Your task to perform on an android device: Open calendar and show me the second week of next month Image 0: 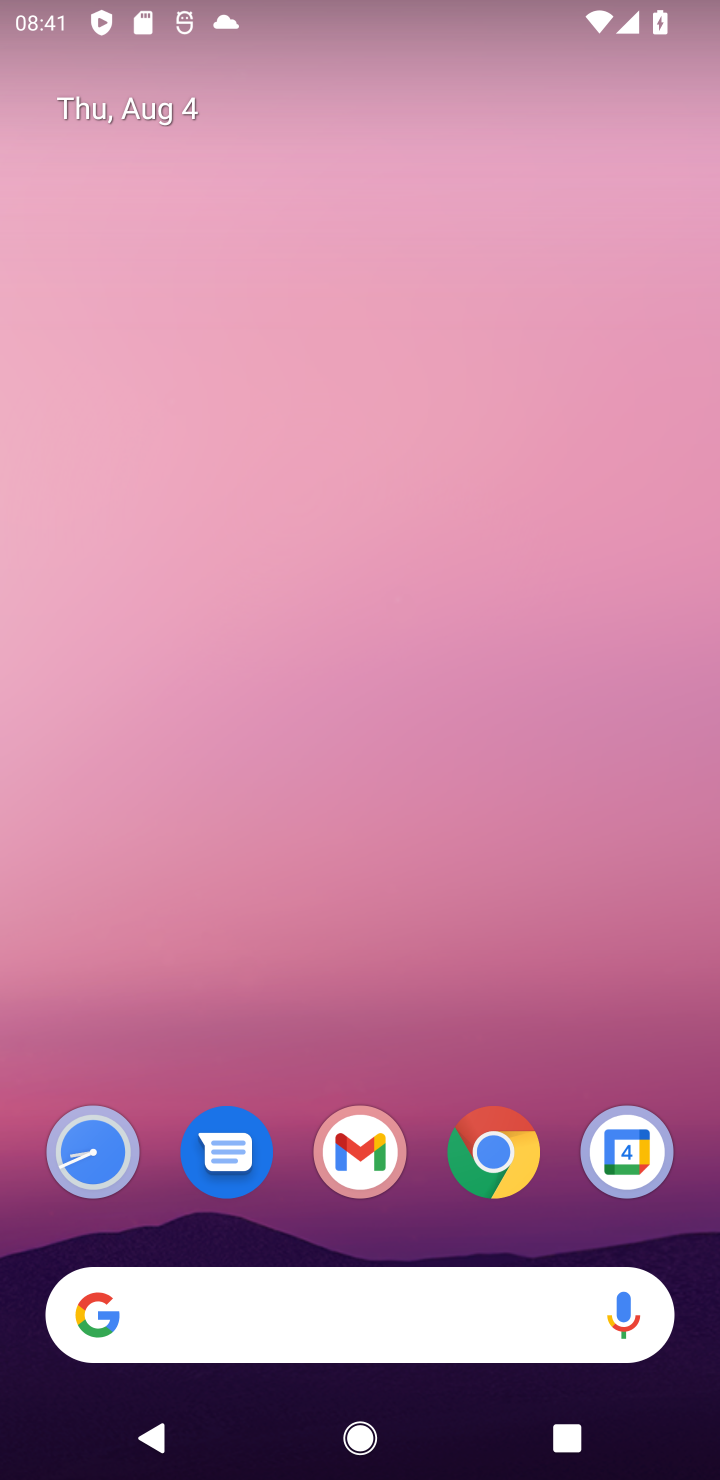
Step 0: drag from (38, 1107) to (403, 138)
Your task to perform on an android device: Open calendar and show me the second week of next month Image 1: 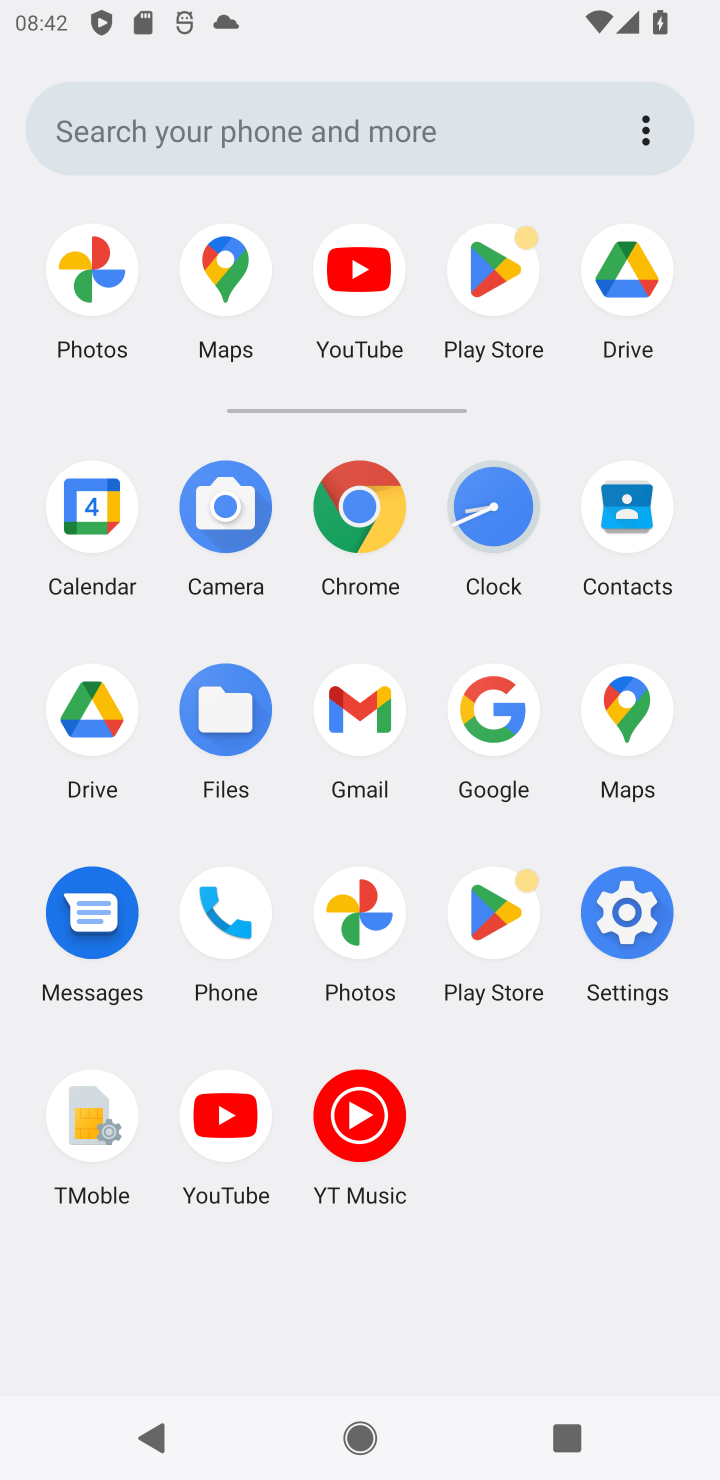
Step 1: click (100, 499)
Your task to perform on an android device: Open calendar and show me the second week of next month Image 2: 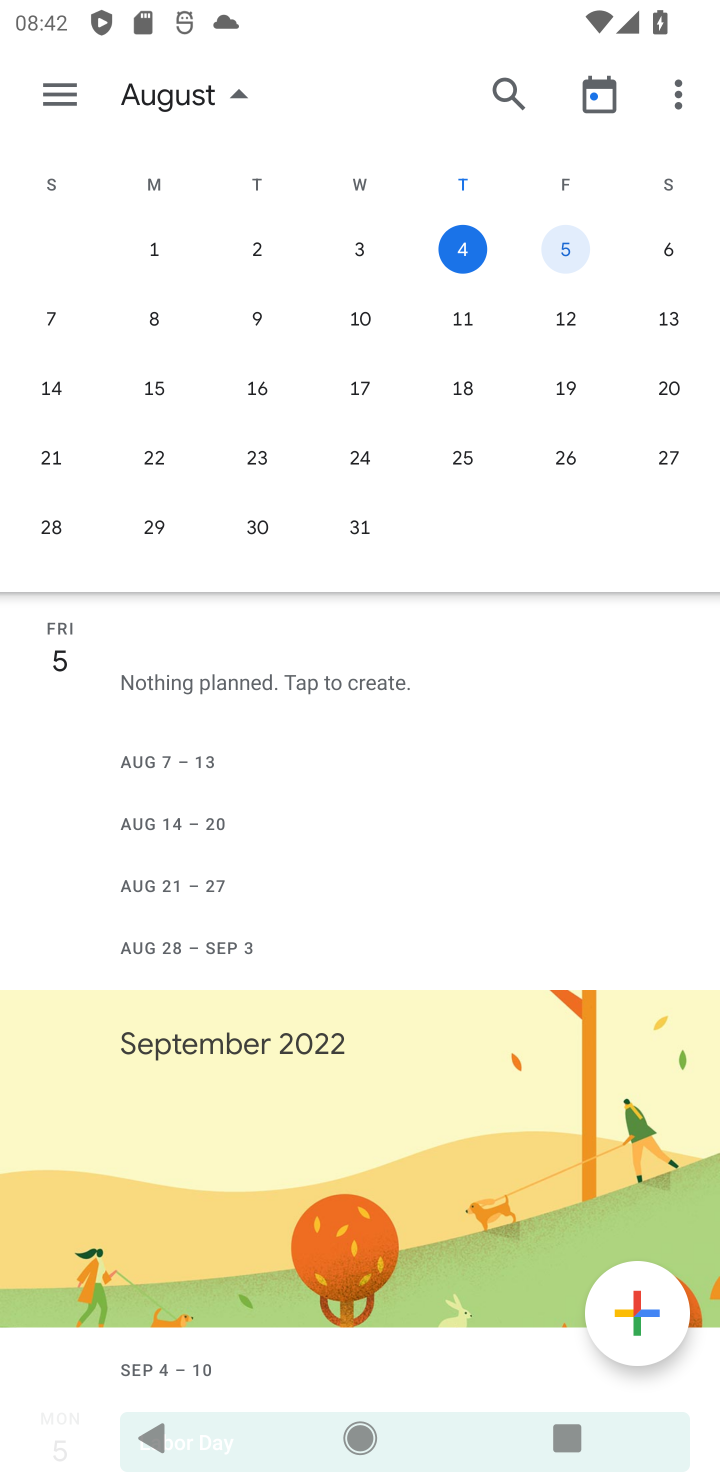
Step 2: drag from (674, 304) to (5, 316)
Your task to perform on an android device: Open calendar and show me the second week of next month Image 3: 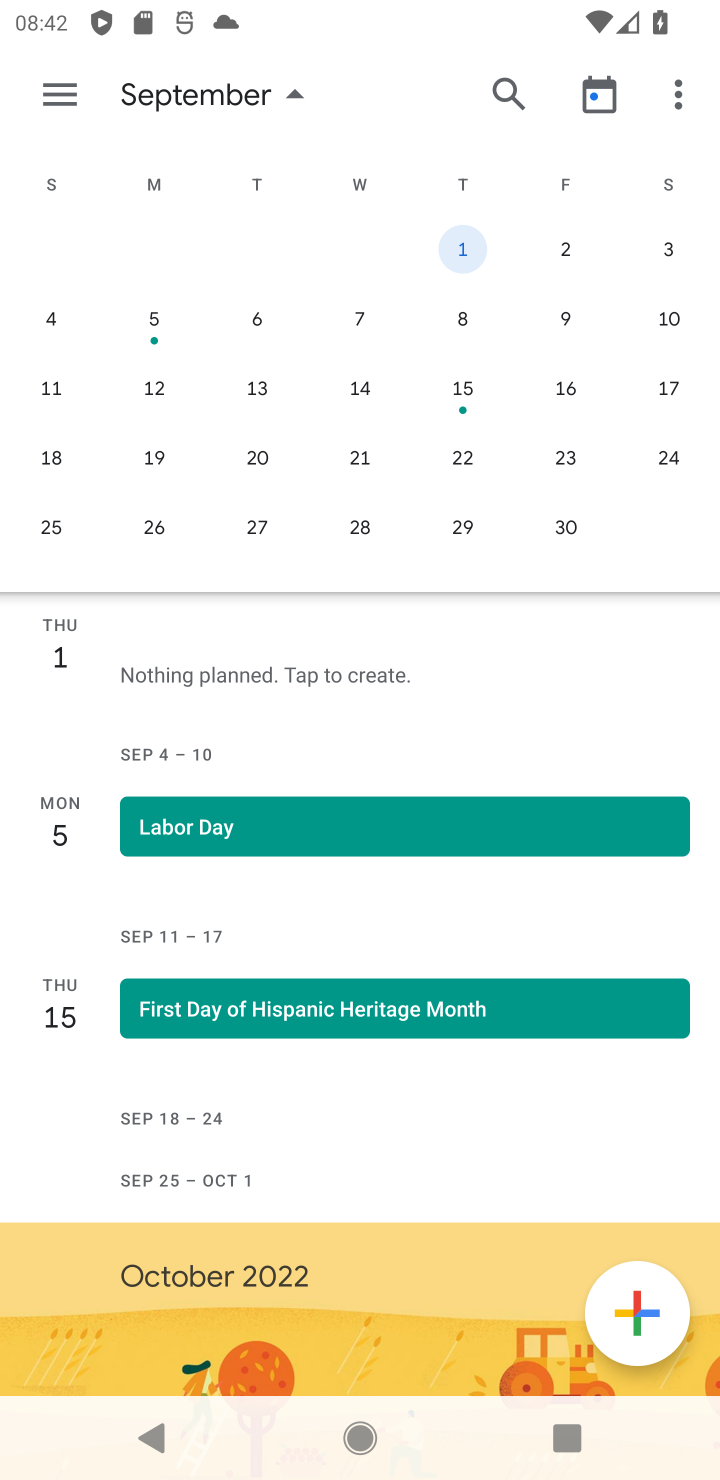
Step 3: click (144, 324)
Your task to perform on an android device: Open calendar and show me the second week of next month Image 4: 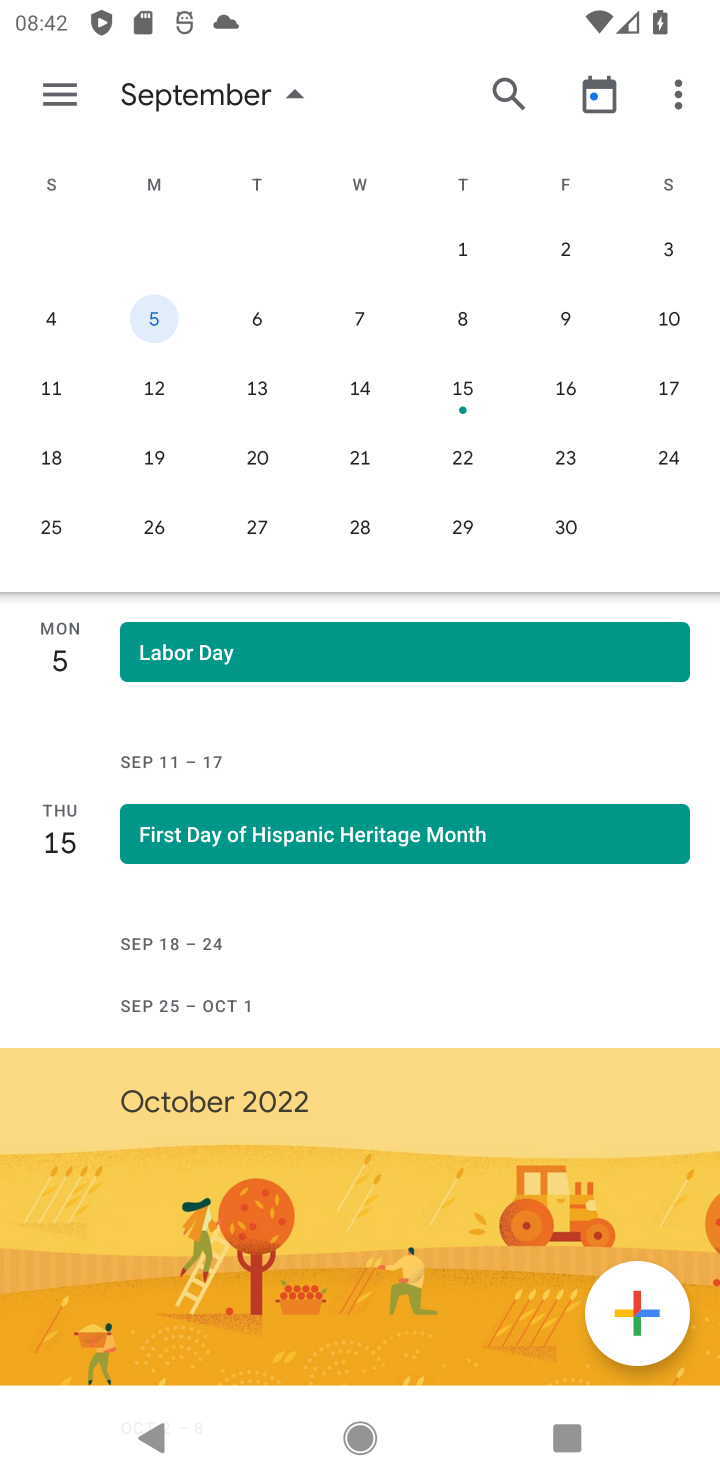
Step 4: click (254, 310)
Your task to perform on an android device: Open calendar and show me the second week of next month Image 5: 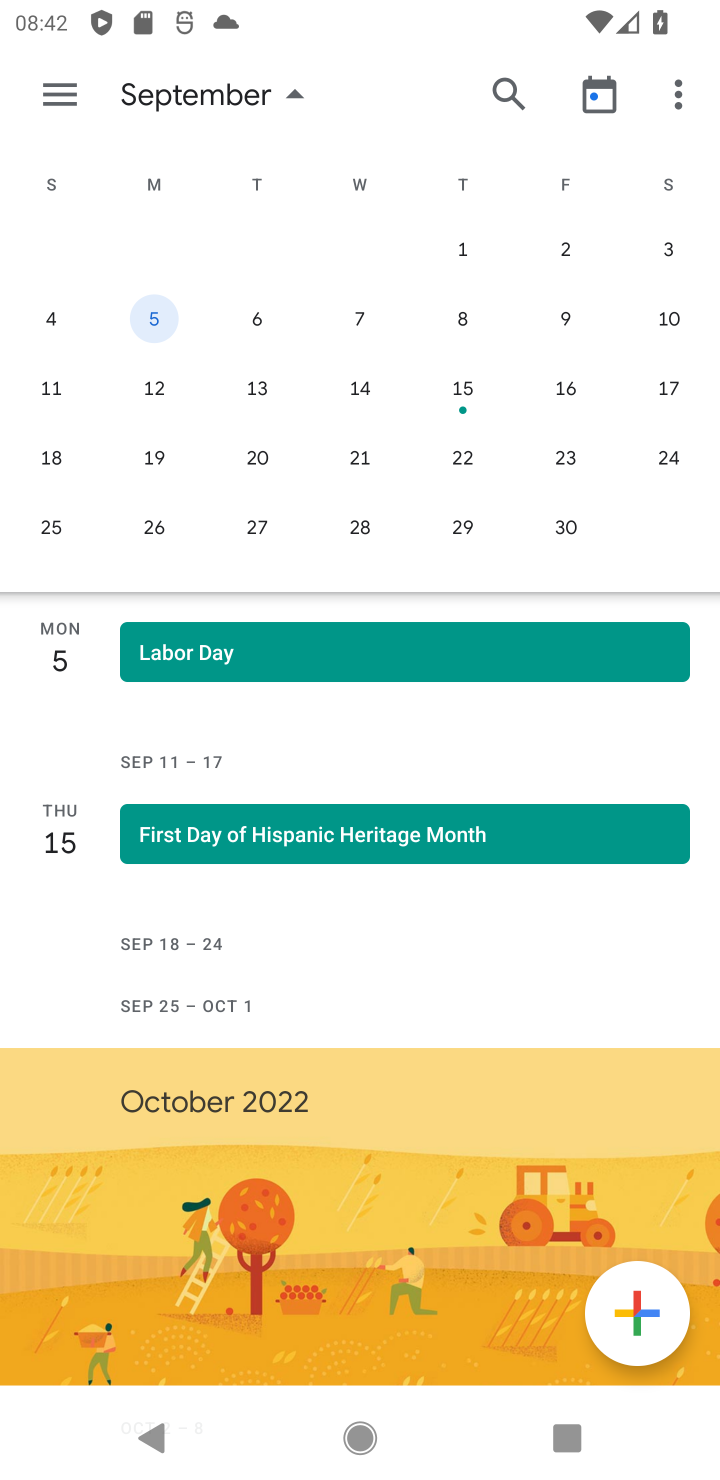
Step 5: click (261, 327)
Your task to perform on an android device: Open calendar and show me the second week of next month Image 6: 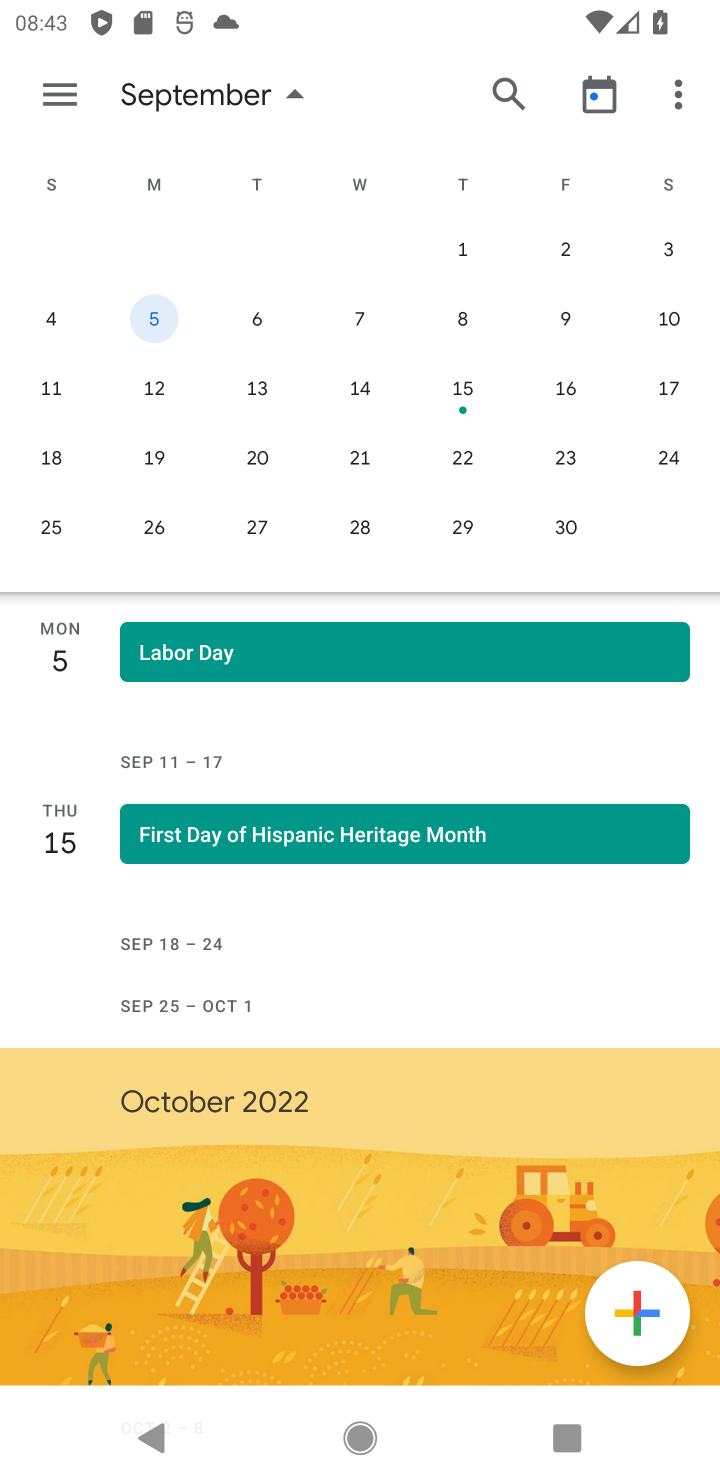
Step 6: click (245, 306)
Your task to perform on an android device: Open calendar and show me the second week of next month Image 7: 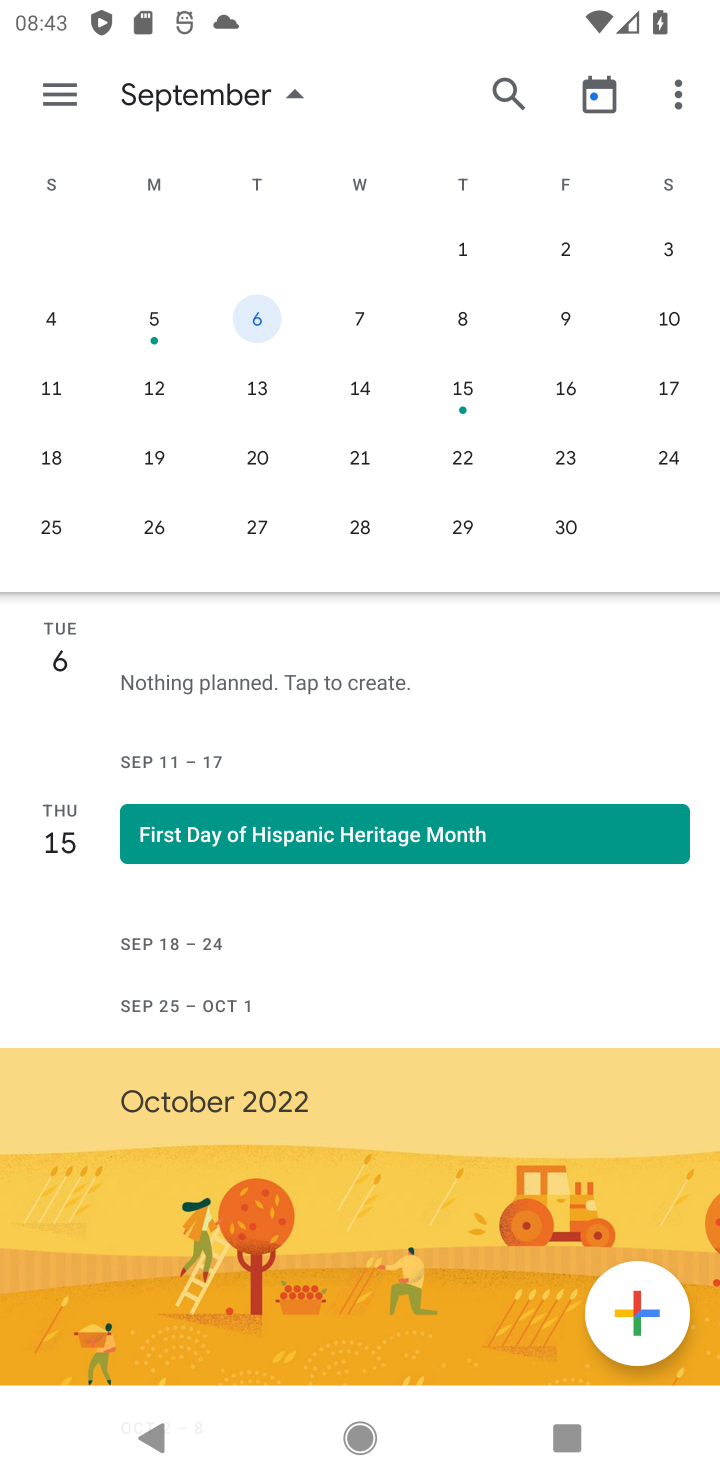
Step 7: click (369, 309)
Your task to perform on an android device: Open calendar and show me the second week of next month Image 8: 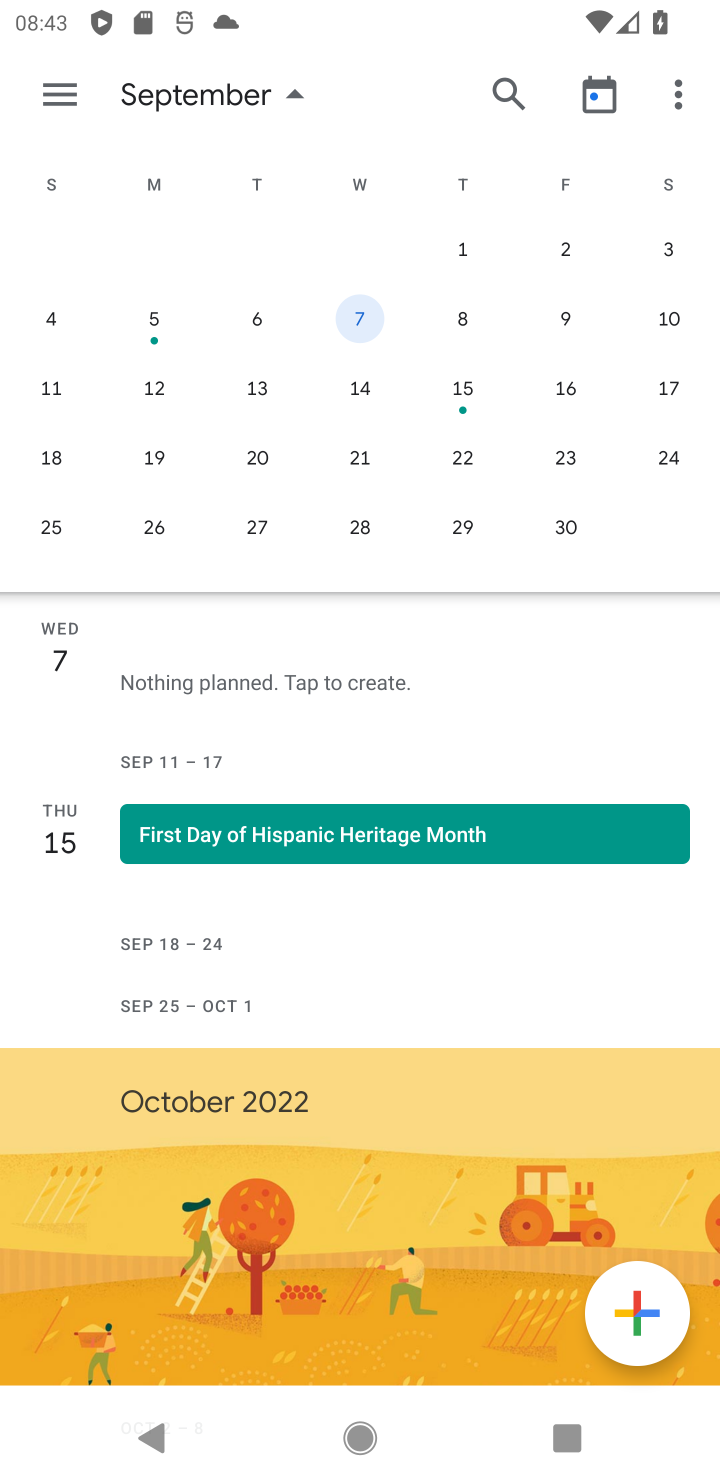
Step 8: click (464, 304)
Your task to perform on an android device: Open calendar and show me the second week of next month Image 9: 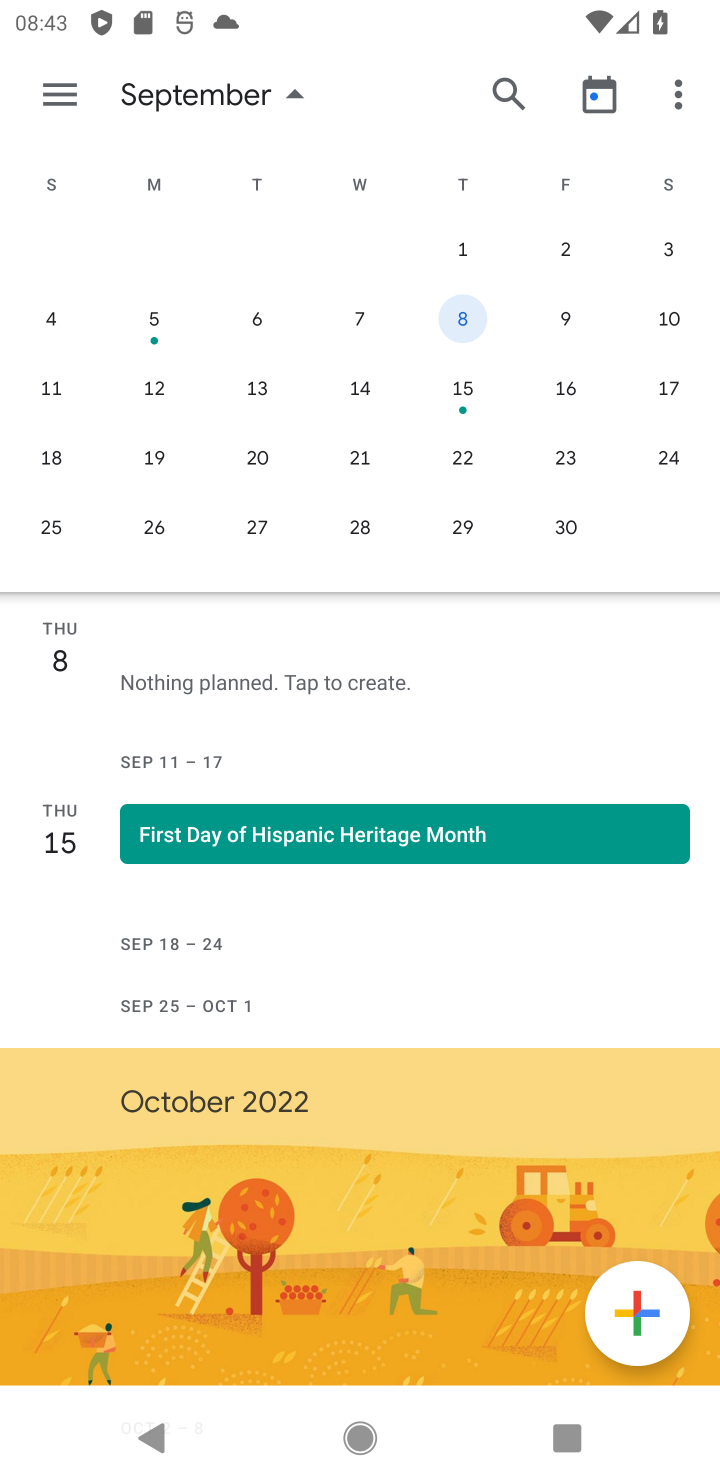
Step 9: task complete